Your task to perform on an android device: add a contact Image 0: 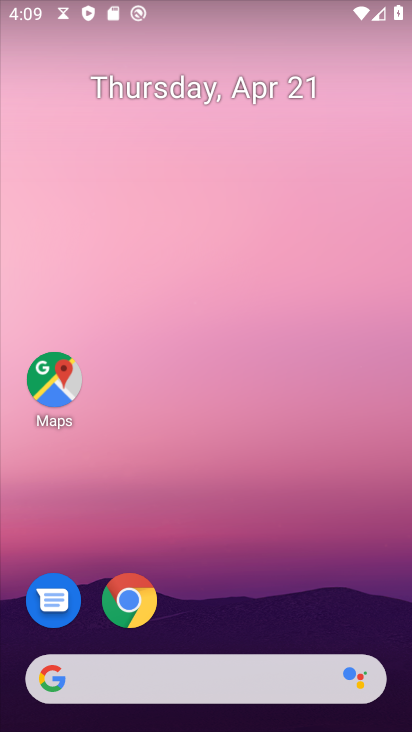
Step 0: drag from (205, 573) to (244, 69)
Your task to perform on an android device: add a contact Image 1: 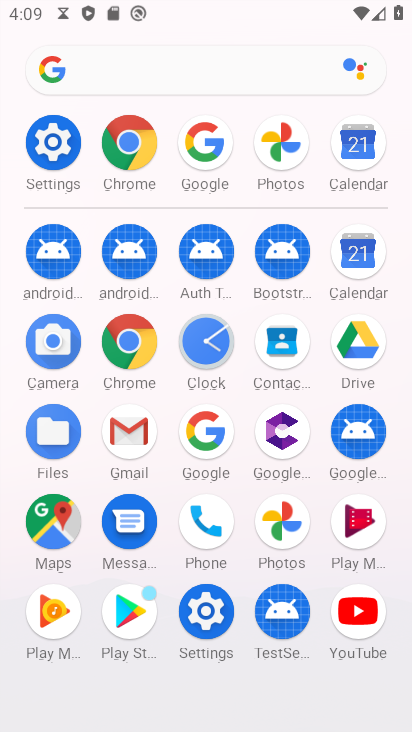
Step 1: click (283, 344)
Your task to perform on an android device: add a contact Image 2: 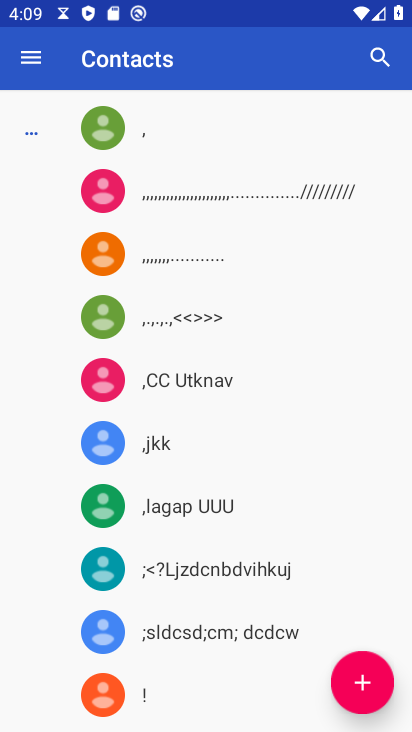
Step 2: click (358, 672)
Your task to perform on an android device: add a contact Image 3: 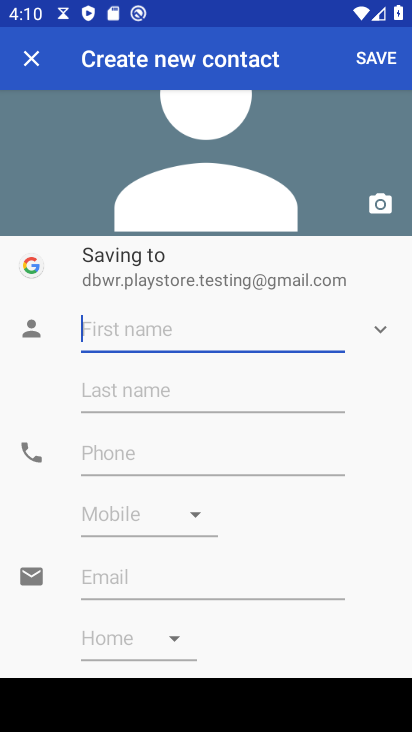
Step 3: type "Hemlata "
Your task to perform on an android device: add a contact Image 4: 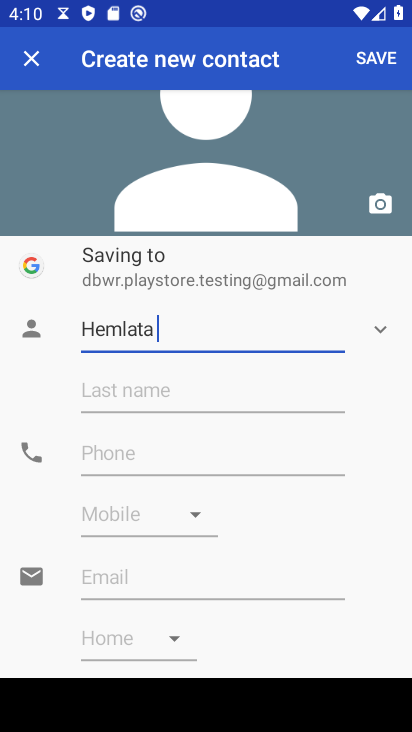
Step 4: click (204, 396)
Your task to perform on an android device: add a contact Image 5: 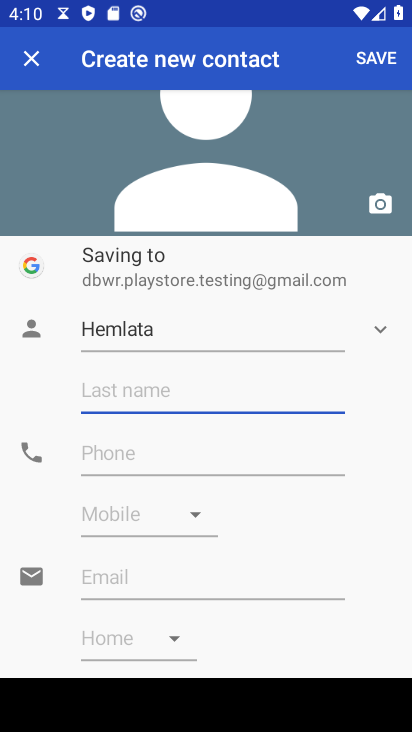
Step 5: type "Sharma"
Your task to perform on an android device: add a contact Image 6: 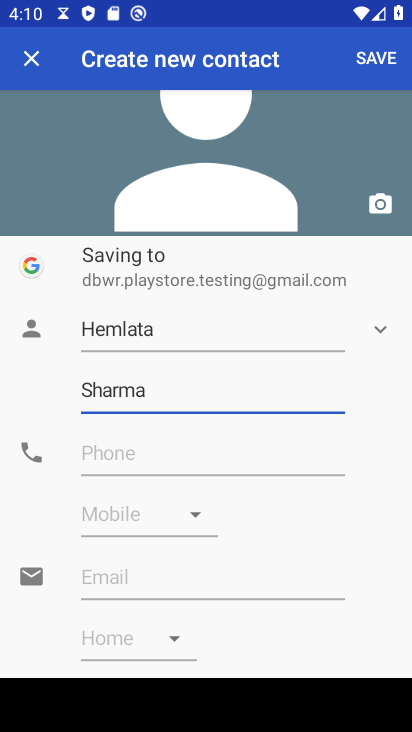
Step 6: click (201, 452)
Your task to perform on an android device: add a contact Image 7: 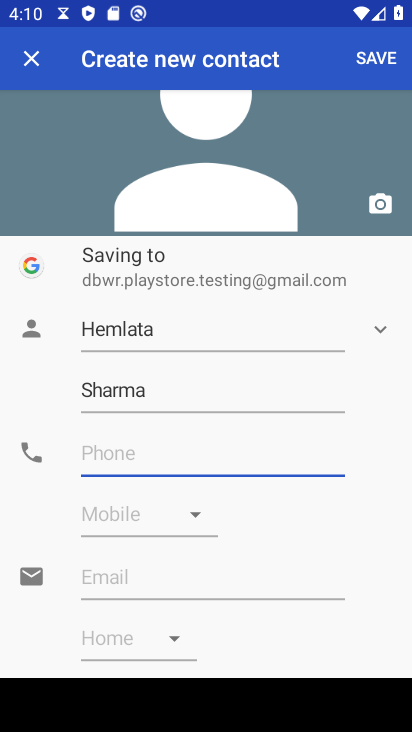
Step 7: type "0996677884433"
Your task to perform on an android device: add a contact Image 8: 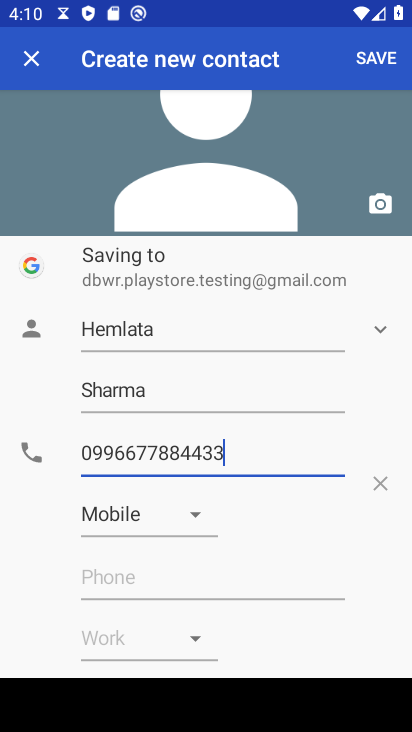
Step 8: type ""
Your task to perform on an android device: add a contact Image 9: 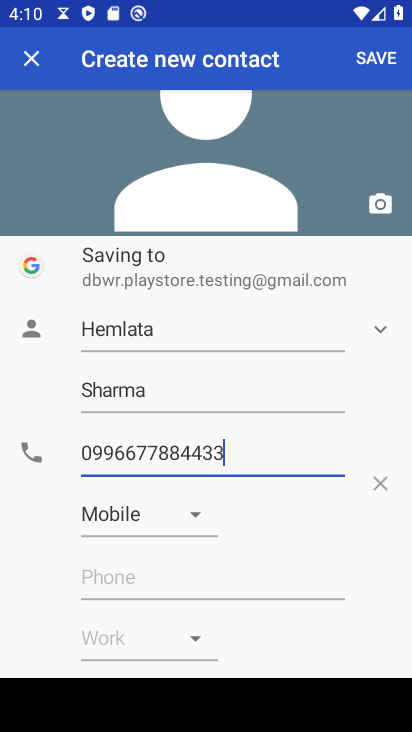
Step 9: click (374, 60)
Your task to perform on an android device: add a contact Image 10: 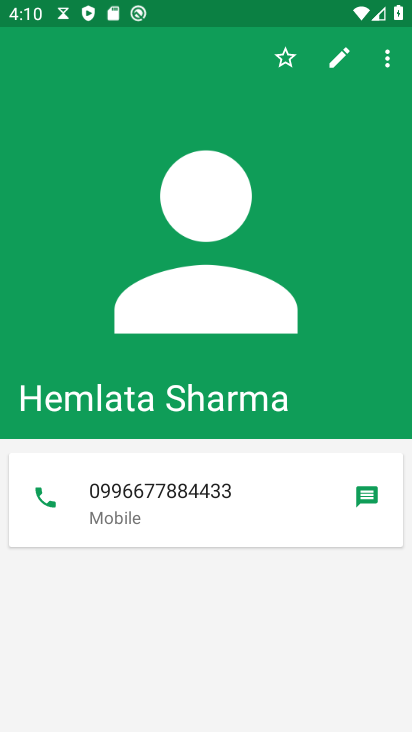
Step 10: task complete